Your task to perform on an android device: Go to CNN.com Image 0: 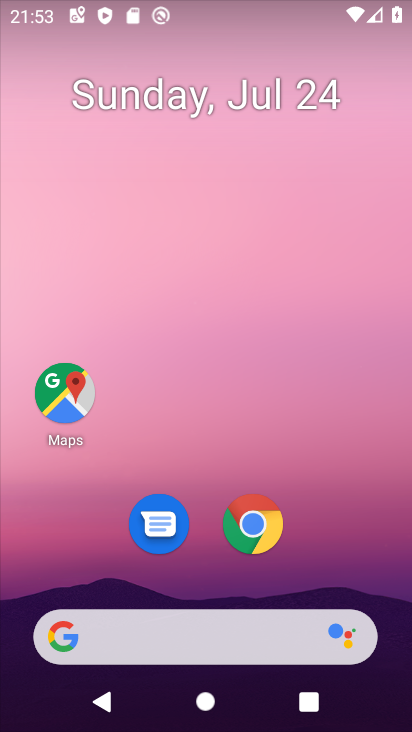
Step 0: click (254, 515)
Your task to perform on an android device: Go to CNN.com Image 1: 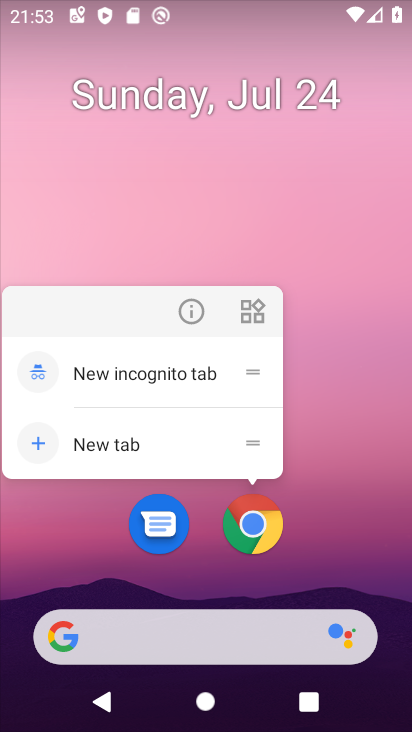
Step 1: click (246, 527)
Your task to perform on an android device: Go to CNN.com Image 2: 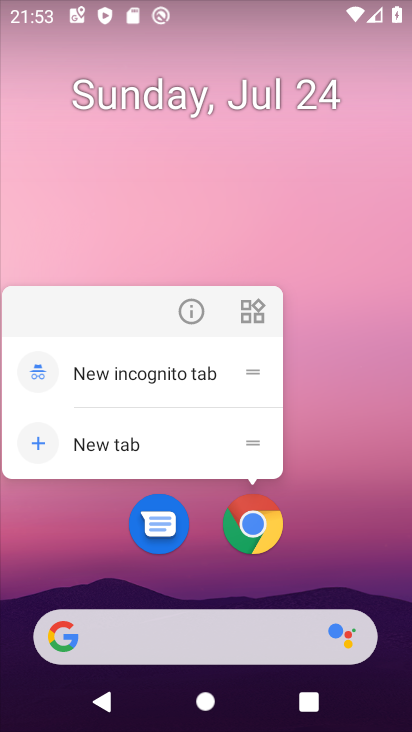
Step 2: click (261, 535)
Your task to perform on an android device: Go to CNN.com Image 3: 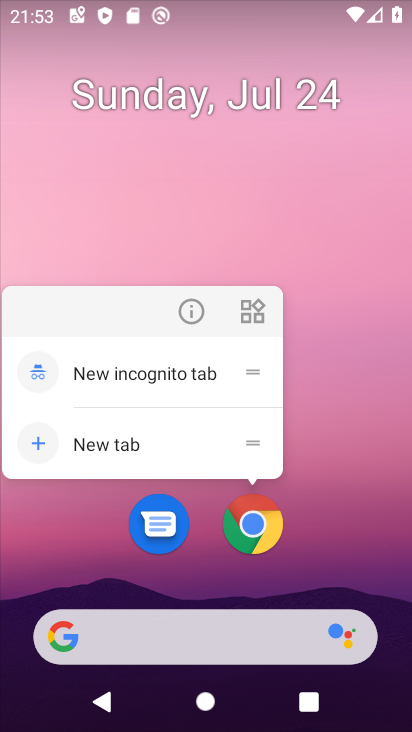
Step 3: click (261, 535)
Your task to perform on an android device: Go to CNN.com Image 4: 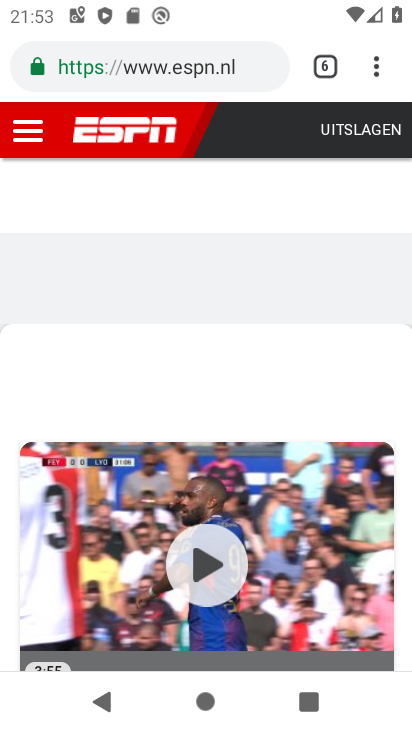
Step 4: drag from (375, 72) to (228, 127)
Your task to perform on an android device: Go to CNN.com Image 5: 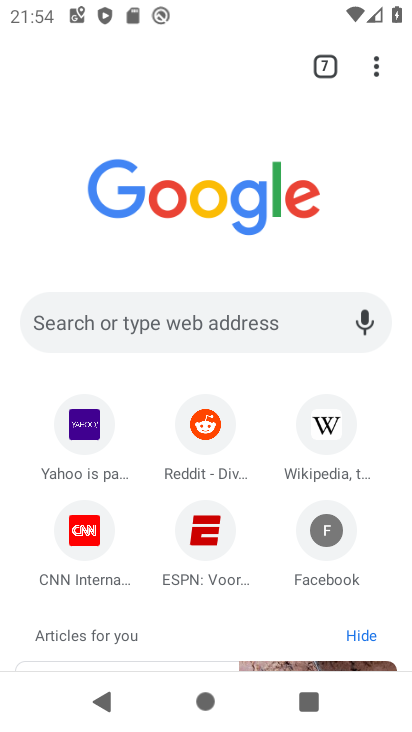
Step 5: click (93, 536)
Your task to perform on an android device: Go to CNN.com Image 6: 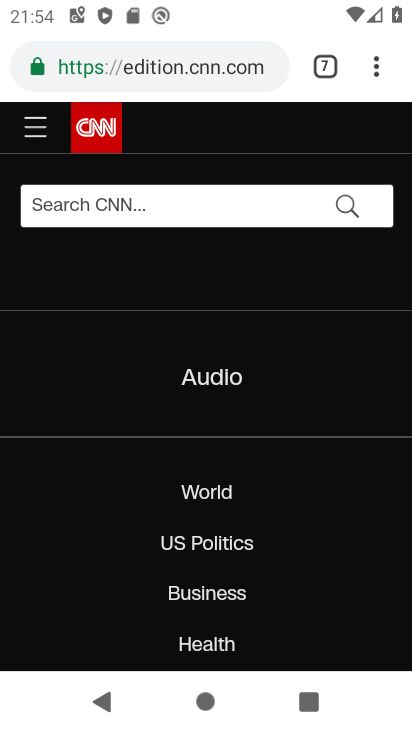
Step 6: task complete